Your task to perform on an android device: set an alarm Image 0: 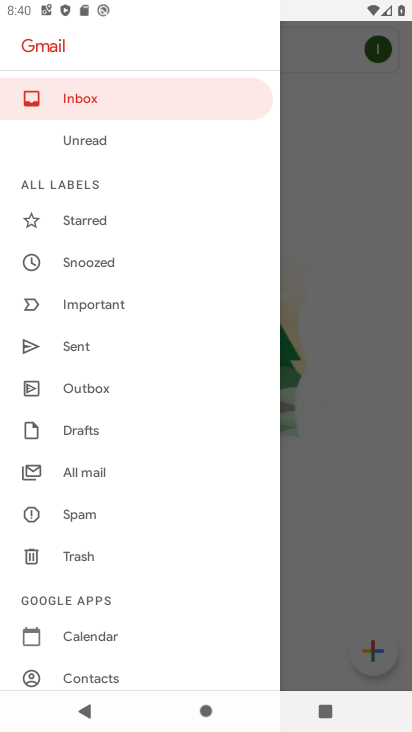
Step 0: press home button
Your task to perform on an android device: set an alarm Image 1: 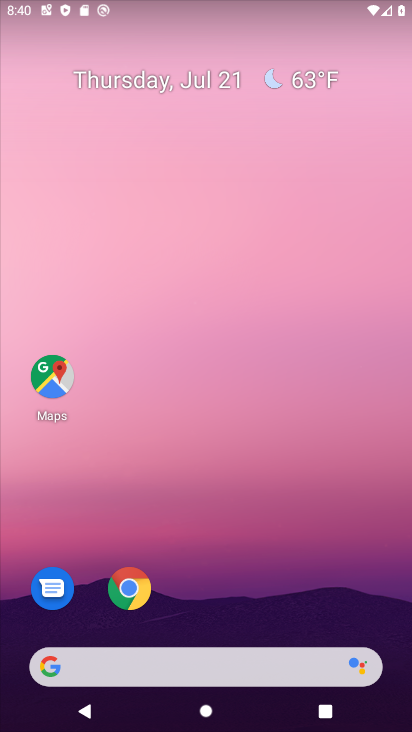
Step 1: drag from (315, 624) to (328, 44)
Your task to perform on an android device: set an alarm Image 2: 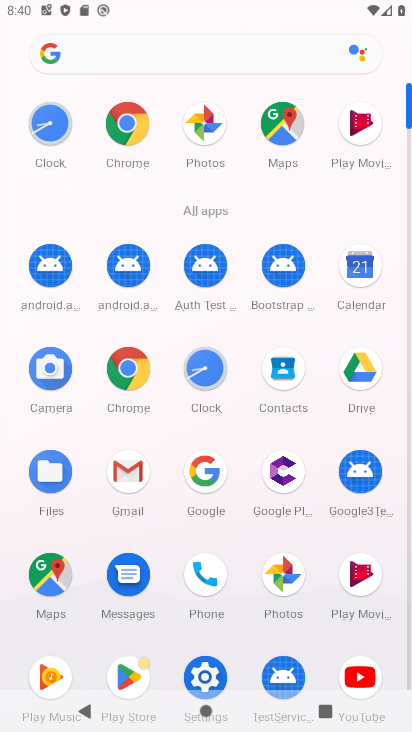
Step 2: click (40, 121)
Your task to perform on an android device: set an alarm Image 3: 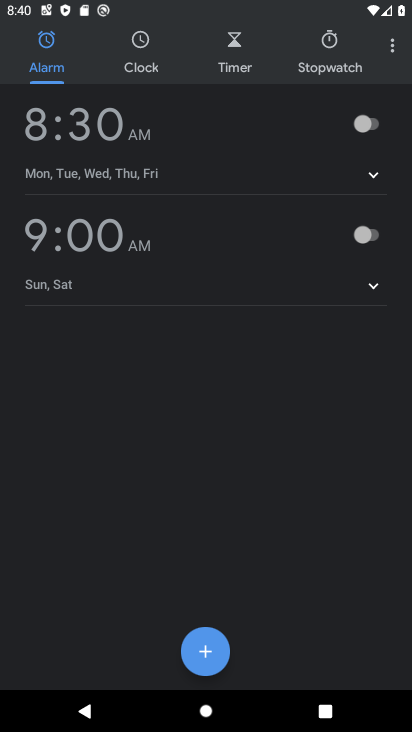
Step 3: click (202, 653)
Your task to perform on an android device: set an alarm Image 4: 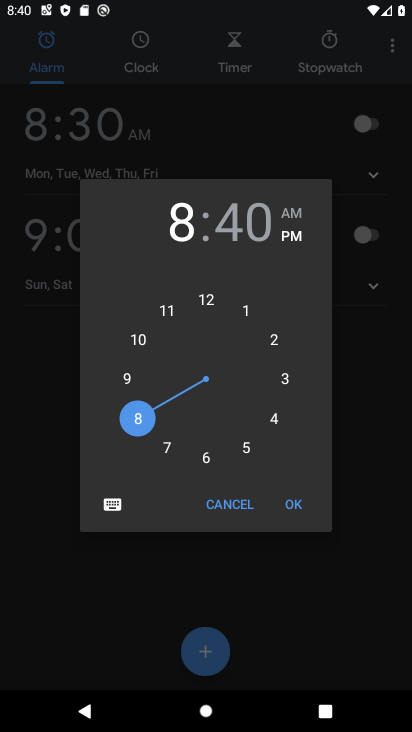
Step 4: click (290, 507)
Your task to perform on an android device: set an alarm Image 5: 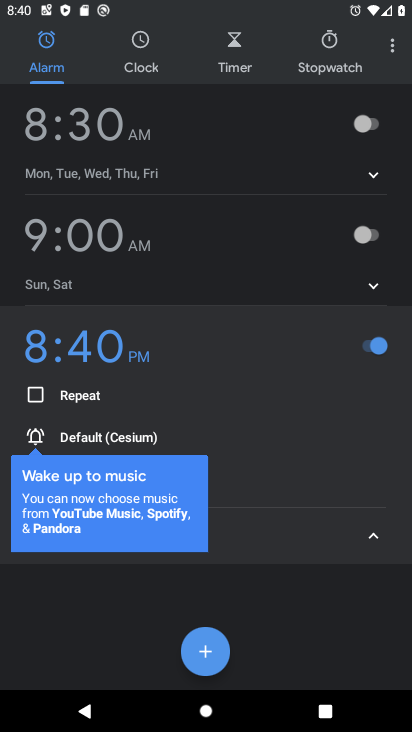
Step 5: click (366, 530)
Your task to perform on an android device: set an alarm Image 6: 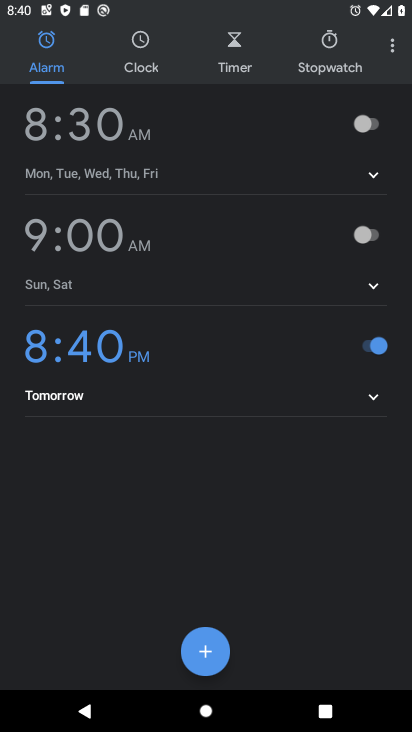
Step 6: task complete